Your task to perform on an android device: Go to CNN.com Image 0: 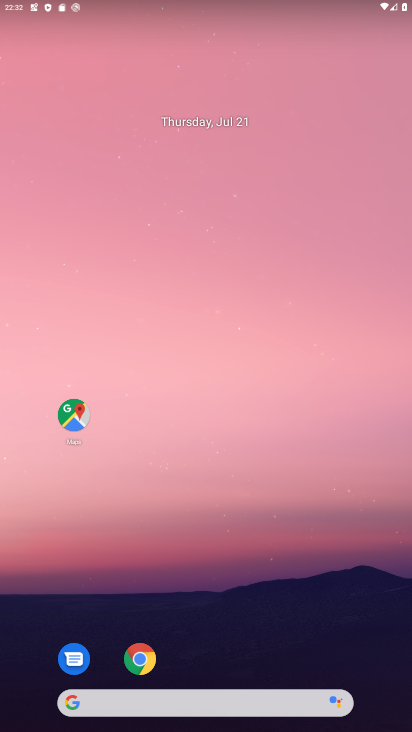
Step 0: drag from (266, 622) to (231, 59)
Your task to perform on an android device: Go to CNN.com Image 1: 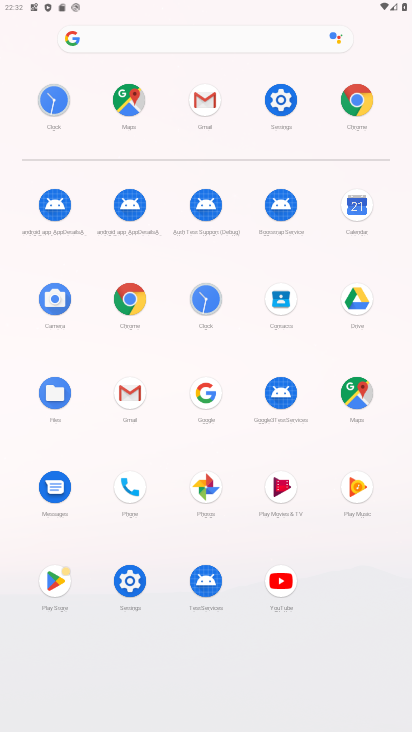
Step 1: click (129, 294)
Your task to perform on an android device: Go to CNN.com Image 2: 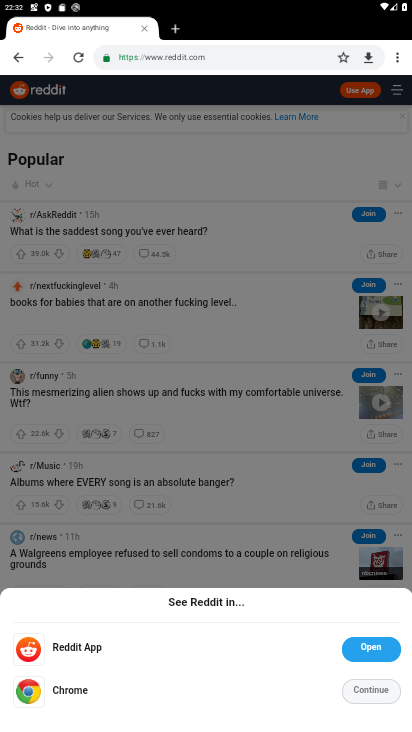
Step 2: click (274, 58)
Your task to perform on an android device: Go to CNN.com Image 3: 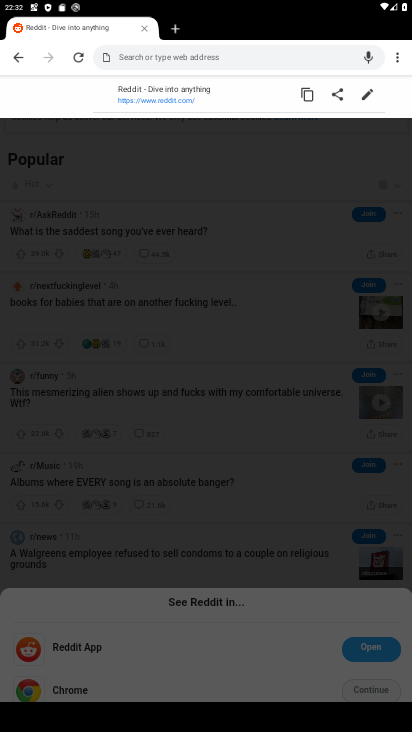
Step 3: type "cnn.com"
Your task to perform on an android device: Go to CNN.com Image 4: 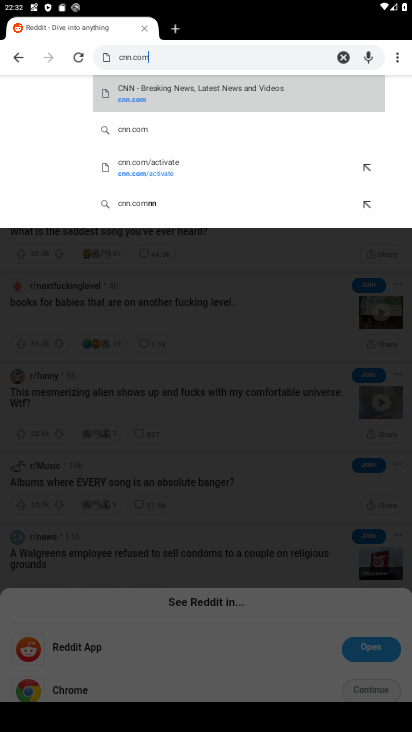
Step 4: click (151, 93)
Your task to perform on an android device: Go to CNN.com Image 5: 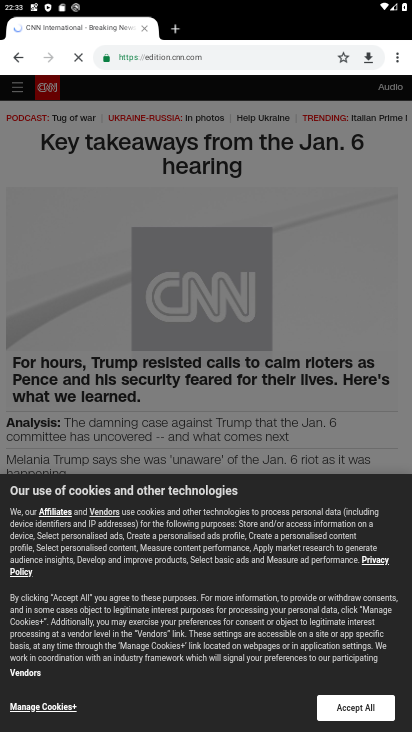
Step 5: task complete